Your task to perform on an android device: Search for Italian restaurants on Maps Image 0: 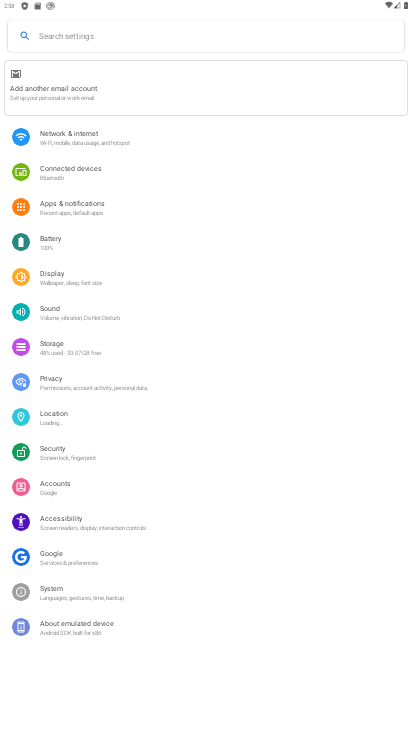
Step 0: press home button
Your task to perform on an android device: Search for Italian restaurants on Maps Image 1: 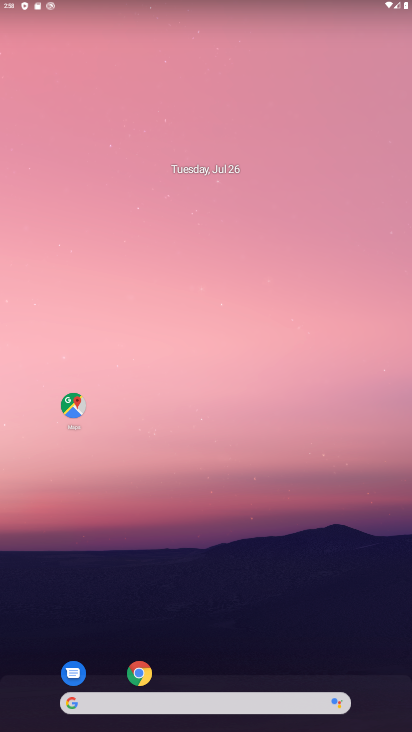
Step 1: click (74, 408)
Your task to perform on an android device: Search for Italian restaurants on Maps Image 2: 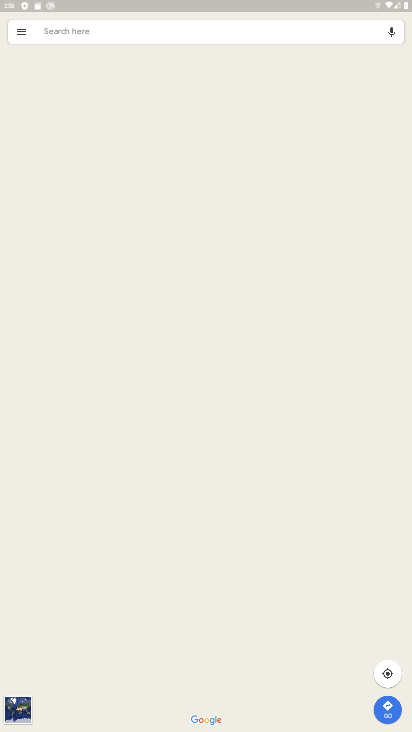
Step 2: click (183, 27)
Your task to perform on an android device: Search for Italian restaurants on Maps Image 3: 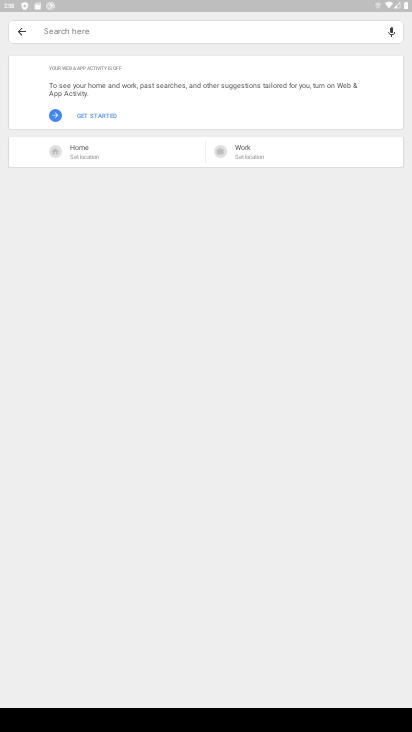
Step 3: click (201, 23)
Your task to perform on an android device: Search for Italian restaurants on Maps Image 4: 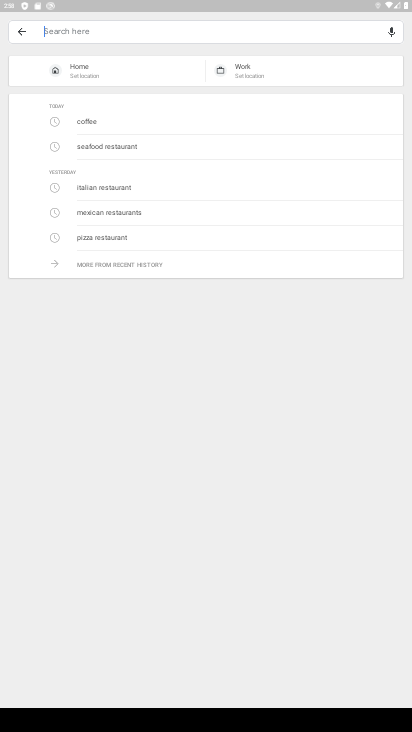
Step 4: type "Italian restaurants"
Your task to perform on an android device: Search for Italian restaurants on Maps Image 5: 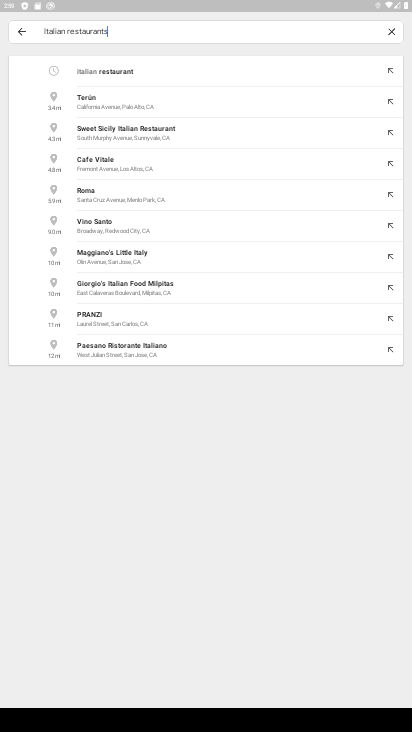
Step 5: click (139, 76)
Your task to perform on an android device: Search for Italian restaurants on Maps Image 6: 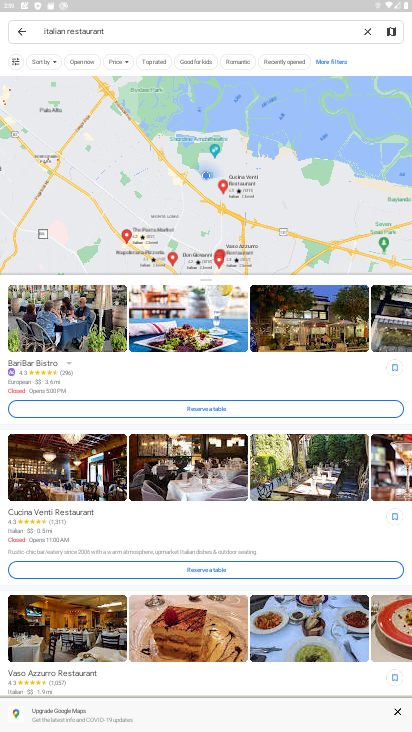
Step 6: task complete